Your task to perform on an android device: Open the web browser Image 0: 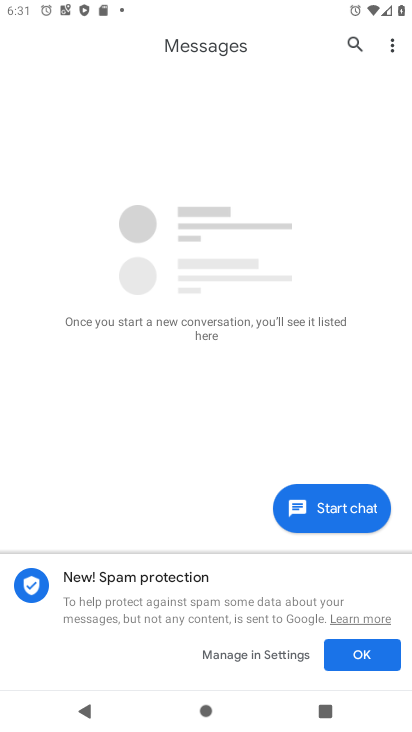
Step 0: press home button
Your task to perform on an android device: Open the web browser Image 1: 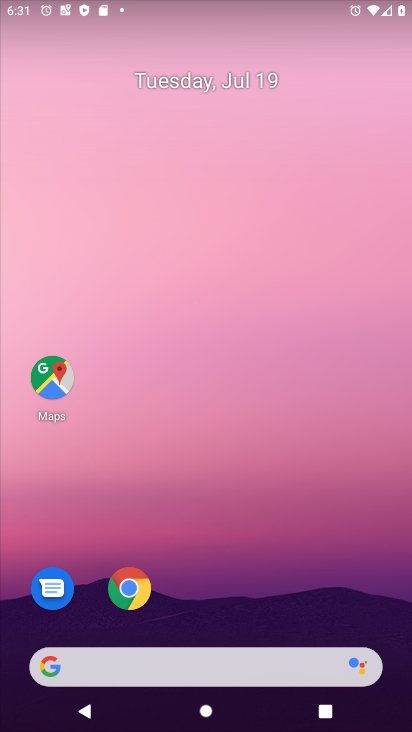
Step 1: click (102, 679)
Your task to perform on an android device: Open the web browser Image 2: 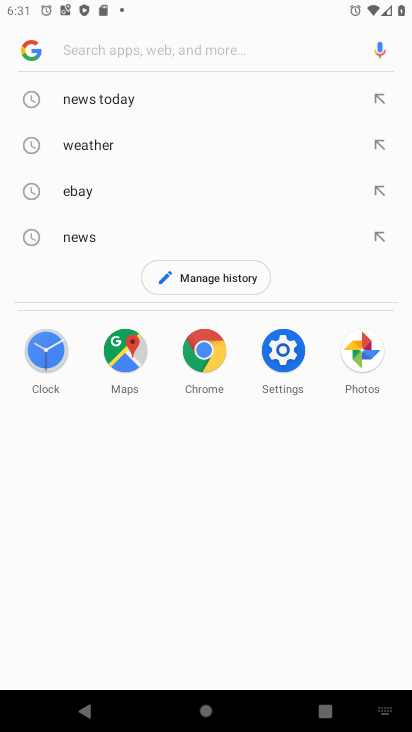
Step 2: task complete